Your task to perform on an android device: Show me popular videos on Youtube Image 0: 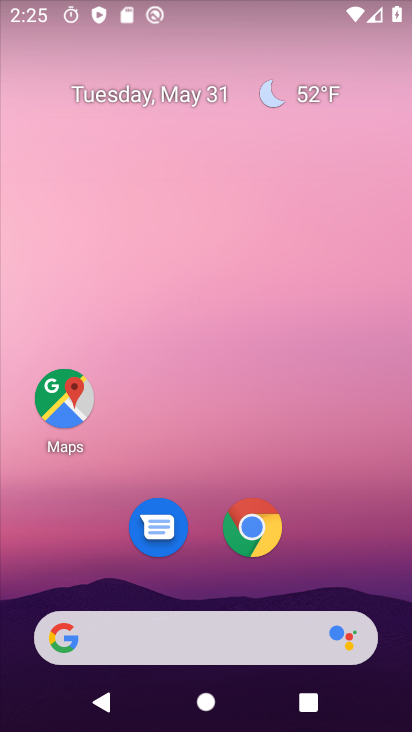
Step 0: drag from (113, 594) to (196, 51)
Your task to perform on an android device: Show me popular videos on Youtube Image 1: 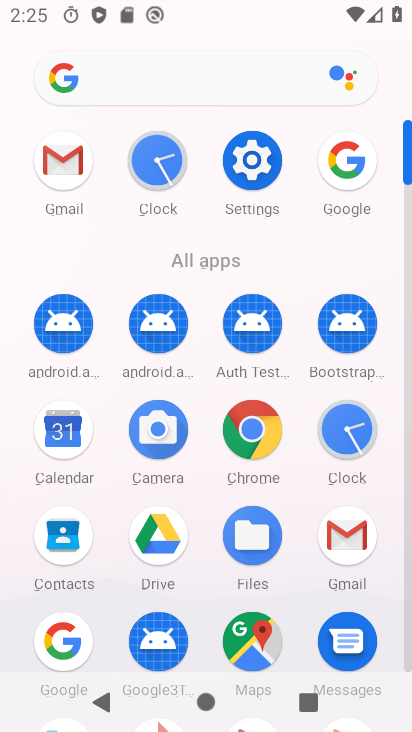
Step 1: drag from (297, 606) to (342, 338)
Your task to perform on an android device: Show me popular videos on Youtube Image 2: 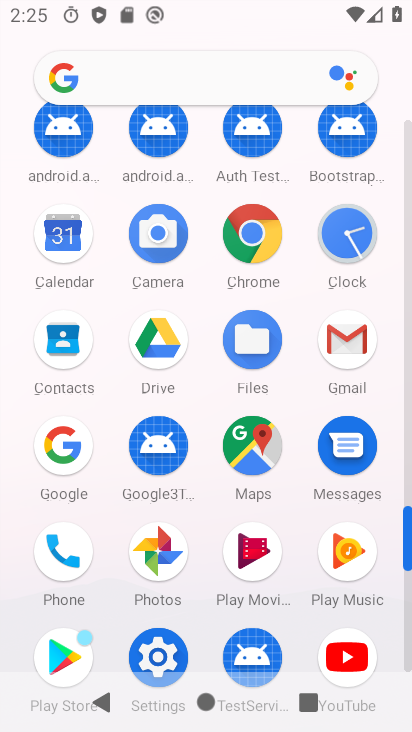
Step 2: click (342, 660)
Your task to perform on an android device: Show me popular videos on Youtube Image 3: 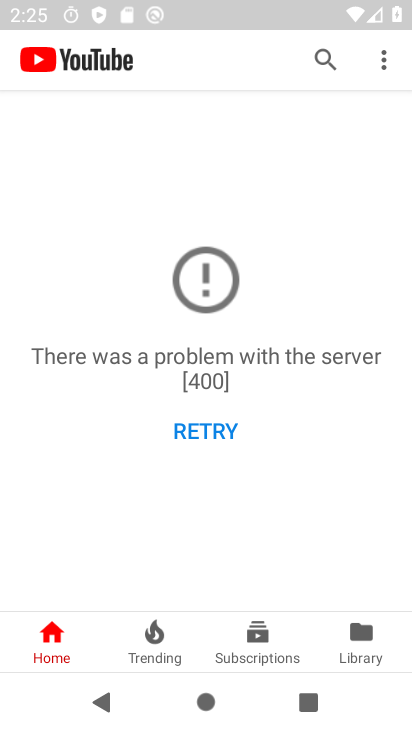
Step 3: click (342, 660)
Your task to perform on an android device: Show me popular videos on Youtube Image 4: 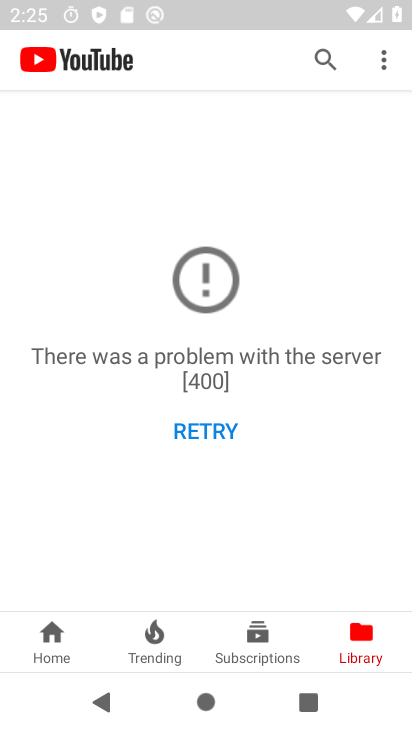
Step 4: task complete